Your task to perform on an android device: Search for seafood restaurants on Google Maps Image 0: 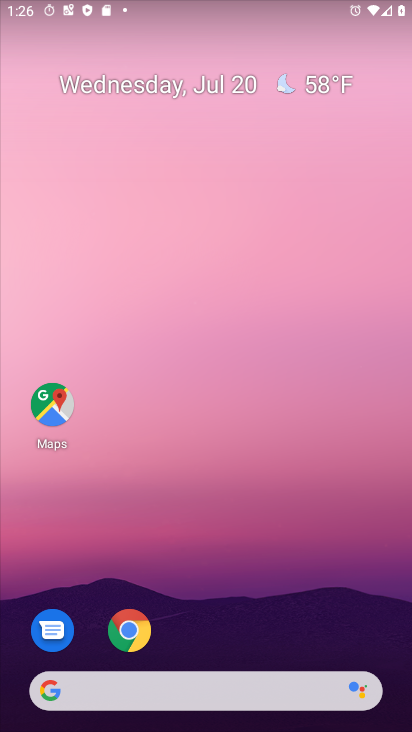
Step 0: press home button
Your task to perform on an android device: Search for seafood restaurants on Google Maps Image 1: 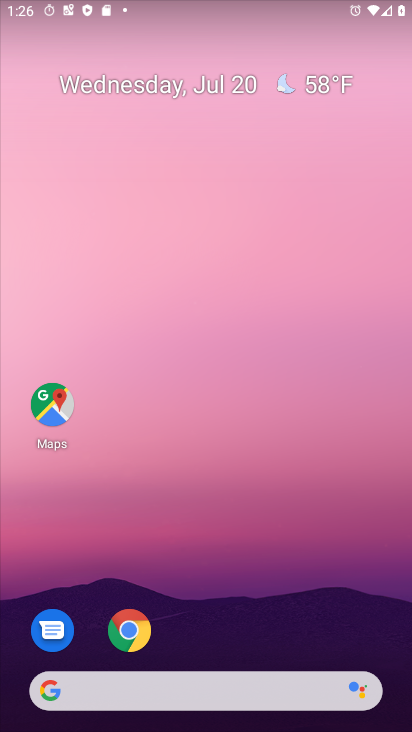
Step 1: click (56, 398)
Your task to perform on an android device: Search for seafood restaurants on Google Maps Image 2: 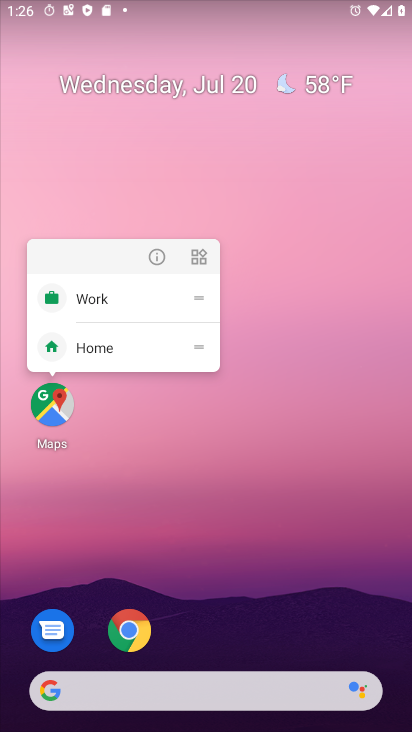
Step 2: click (47, 395)
Your task to perform on an android device: Search for seafood restaurants on Google Maps Image 3: 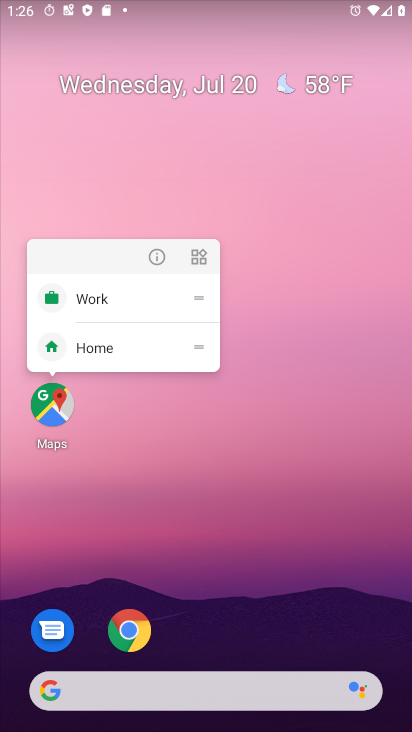
Step 3: click (41, 415)
Your task to perform on an android device: Search for seafood restaurants on Google Maps Image 4: 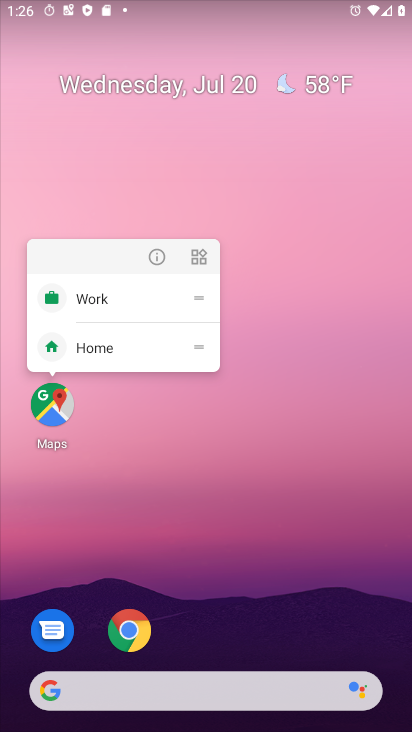
Step 4: click (51, 410)
Your task to perform on an android device: Search for seafood restaurants on Google Maps Image 5: 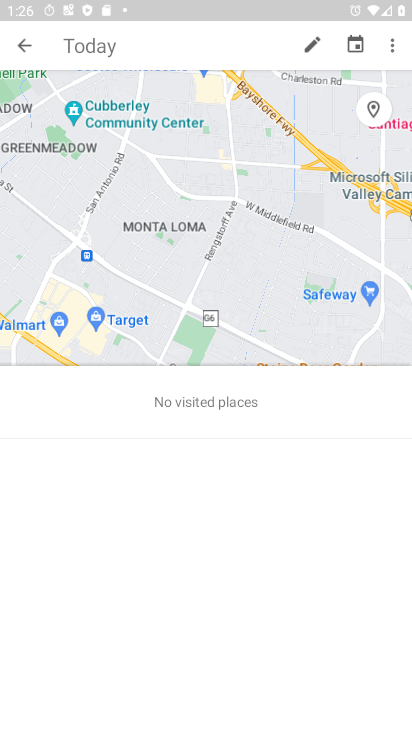
Step 5: click (24, 41)
Your task to perform on an android device: Search for seafood restaurants on Google Maps Image 6: 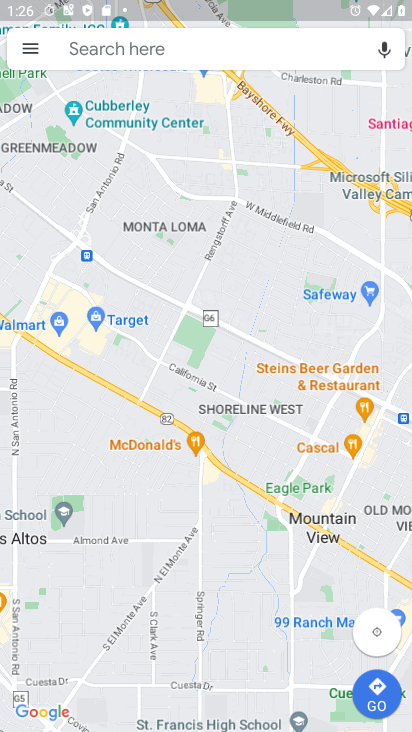
Step 6: click (166, 47)
Your task to perform on an android device: Search for seafood restaurants on Google Maps Image 7: 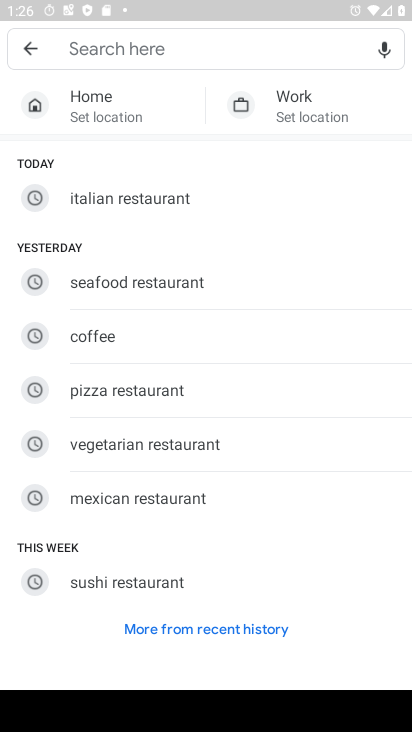
Step 7: click (159, 287)
Your task to perform on an android device: Search for seafood restaurants on Google Maps Image 8: 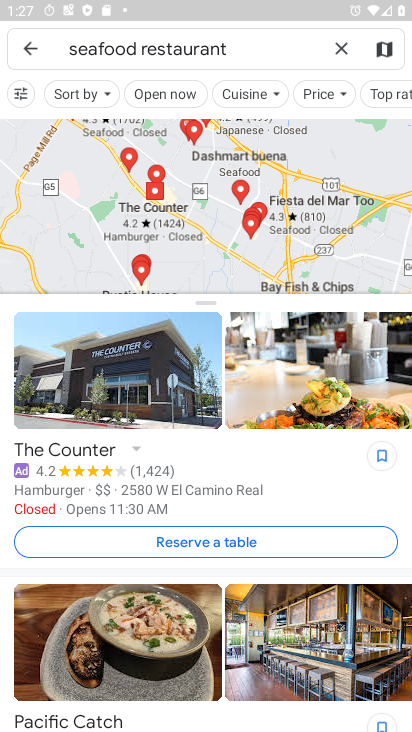
Step 8: task complete